Your task to perform on an android device: allow notifications from all sites in the chrome app Image 0: 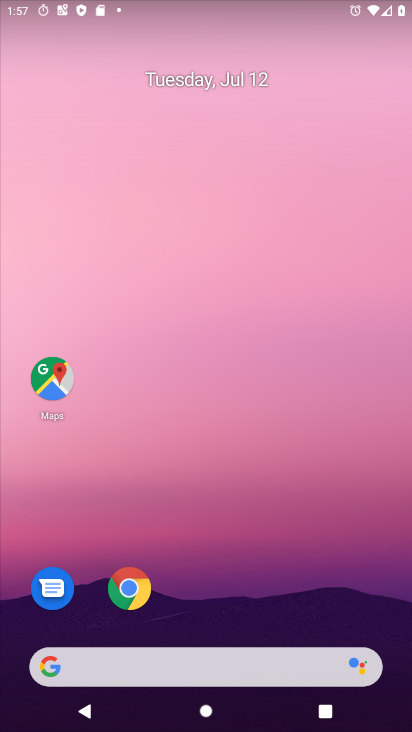
Step 0: drag from (188, 616) to (234, 39)
Your task to perform on an android device: allow notifications from all sites in the chrome app Image 1: 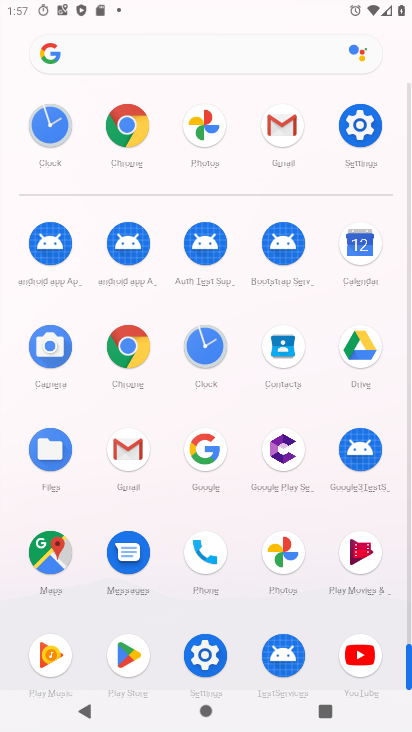
Step 1: click (129, 342)
Your task to perform on an android device: allow notifications from all sites in the chrome app Image 2: 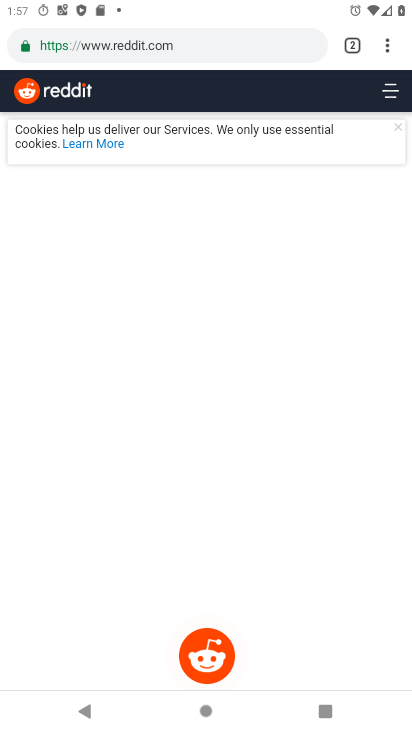
Step 2: drag from (199, 486) to (232, 248)
Your task to perform on an android device: allow notifications from all sites in the chrome app Image 3: 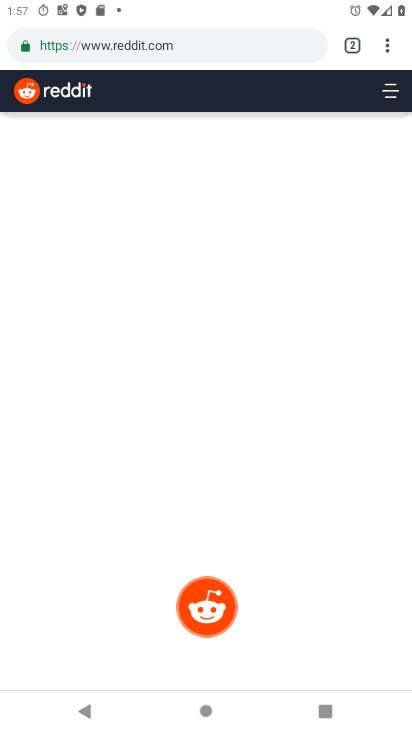
Step 3: click (388, 45)
Your task to perform on an android device: allow notifications from all sites in the chrome app Image 4: 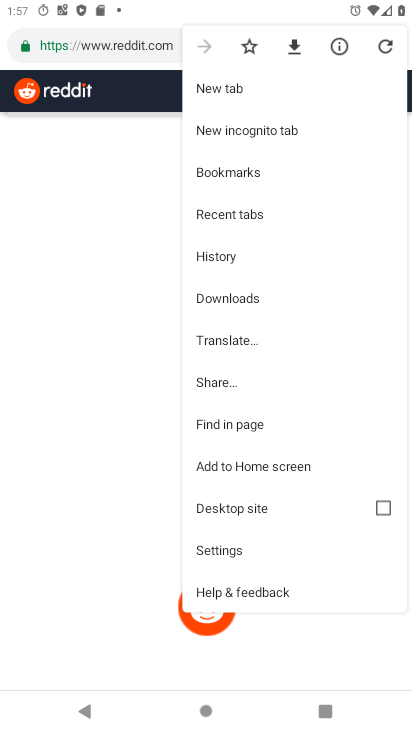
Step 4: click (241, 555)
Your task to perform on an android device: allow notifications from all sites in the chrome app Image 5: 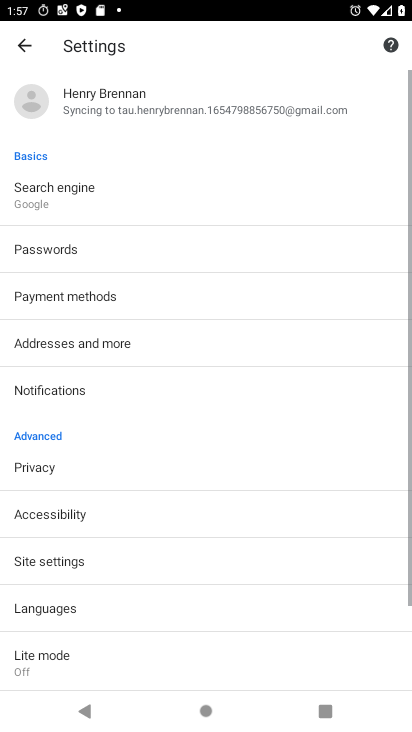
Step 5: drag from (212, 581) to (244, 242)
Your task to perform on an android device: allow notifications from all sites in the chrome app Image 6: 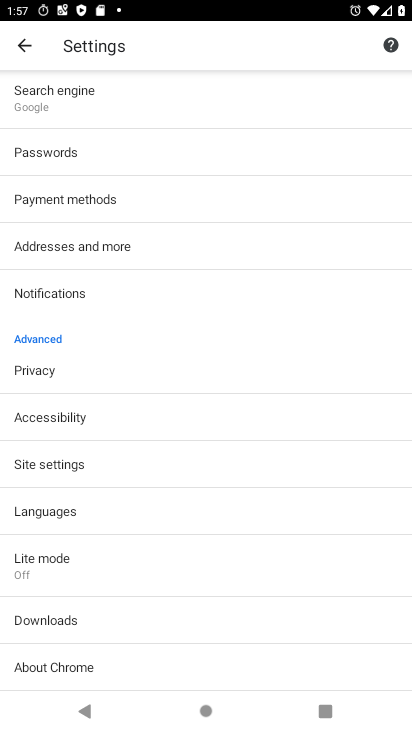
Step 6: click (117, 461)
Your task to perform on an android device: allow notifications from all sites in the chrome app Image 7: 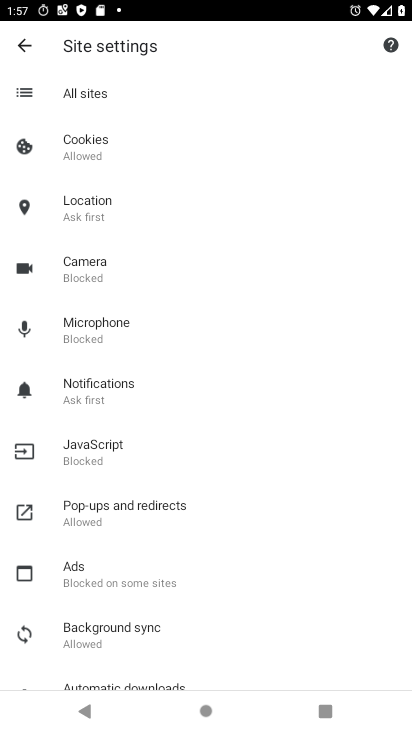
Step 7: drag from (165, 508) to (286, 208)
Your task to perform on an android device: allow notifications from all sites in the chrome app Image 8: 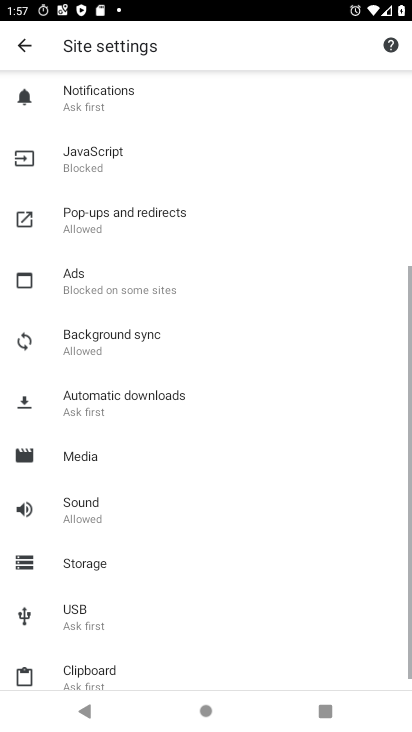
Step 8: drag from (194, 214) to (242, 683)
Your task to perform on an android device: allow notifications from all sites in the chrome app Image 9: 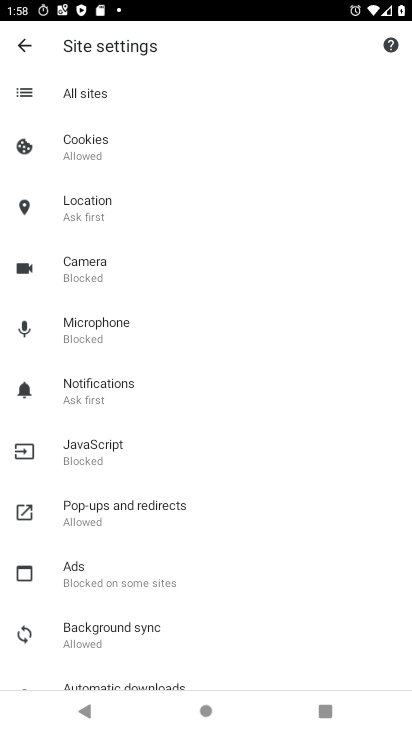
Step 9: drag from (167, 318) to (261, 638)
Your task to perform on an android device: allow notifications from all sites in the chrome app Image 10: 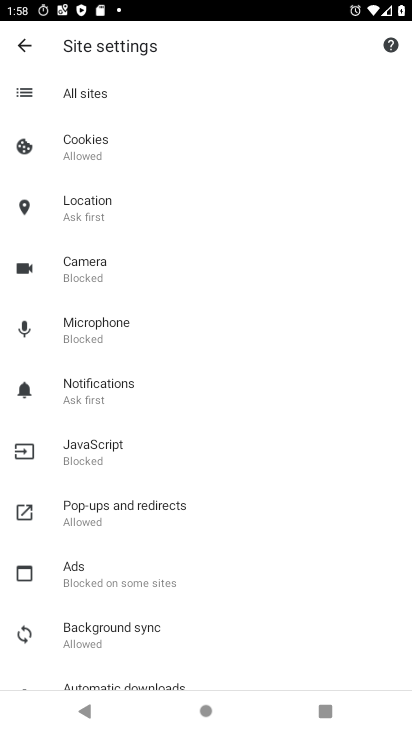
Step 10: click (124, 388)
Your task to perform on an android device: allow notifications from all sites in the chrome app Image 11: 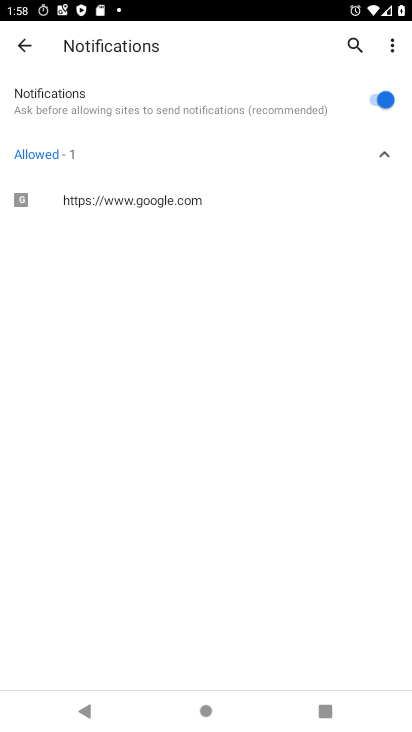
Step 11: task complete